Your task to perform on an android device: open sync settings in chrome Image 0: 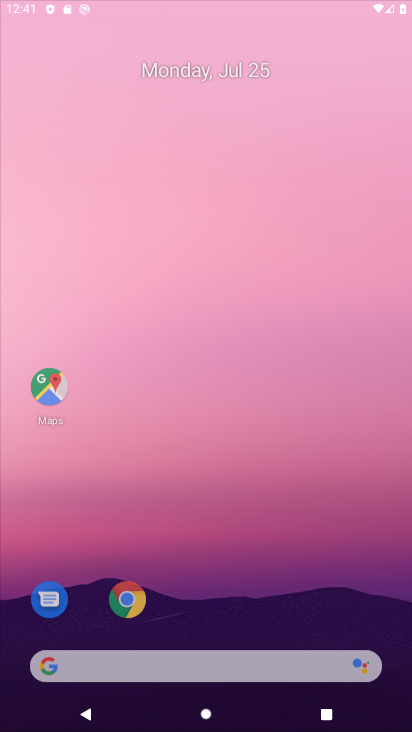
Step 0: drag from (193, 636) to (201, 107)
Your task to perform on an android device: open sync settings in chrome Image 1: 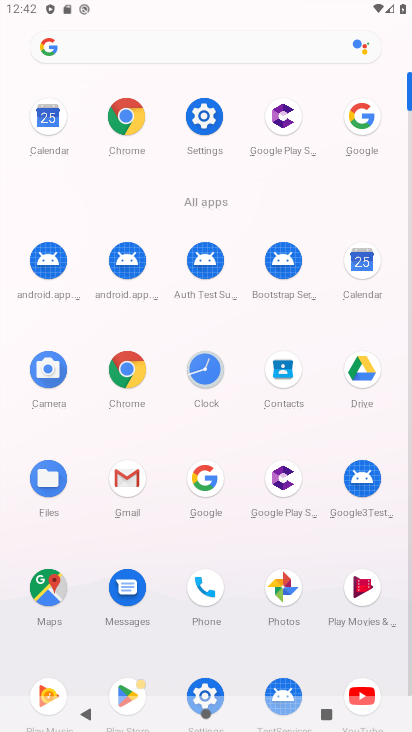
Step 1: click (121, 373)
Your task to perform on an android device: open sync settings in chrome Image 2: 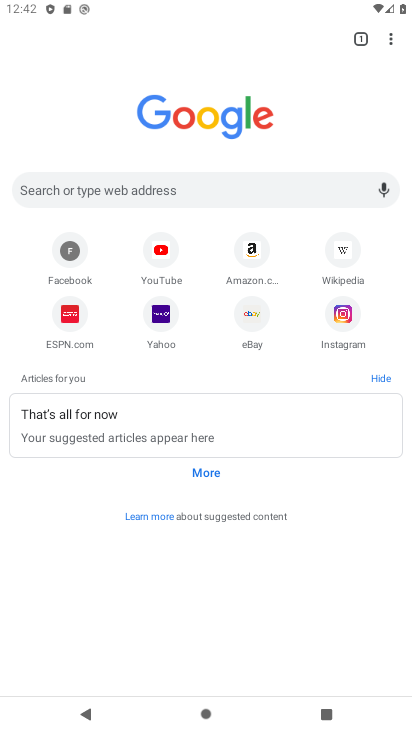
Step 2: click (388, 40)
Your task to perform on an android device: open sync settings in chrome Image 3: 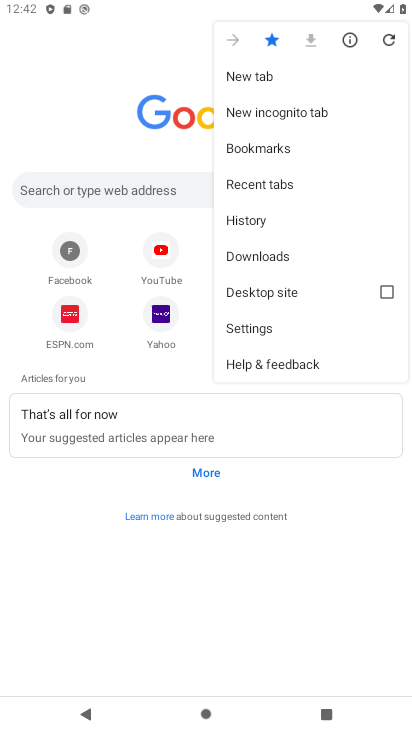
Step 3: click (263, 334)
Your task to perform on an android device: open sync settings in chrome Image 4: 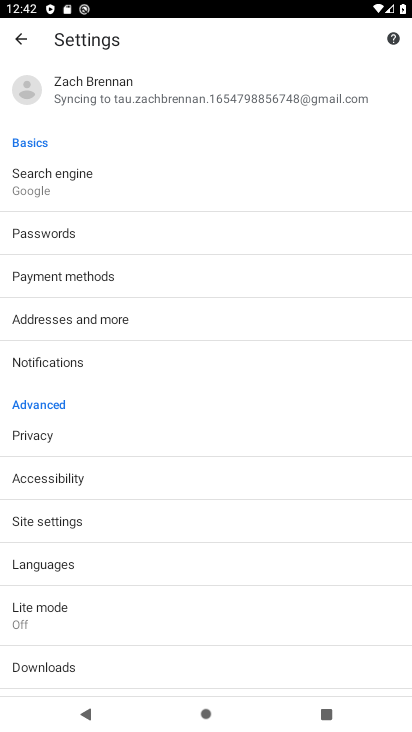
Step 4: drag from (121, 564) to (91, 1)
Your task to perform on an android device: open sync settings in chrome Image 5: 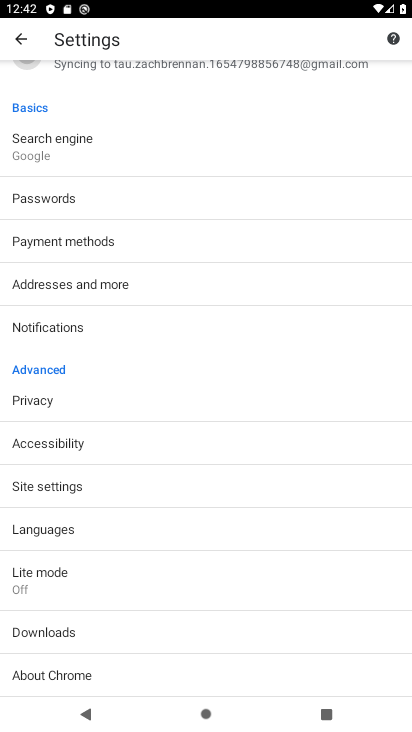
Step 5: click (55, 485)
Your task to perform on an android device: open sync settings in chrome Image 6: 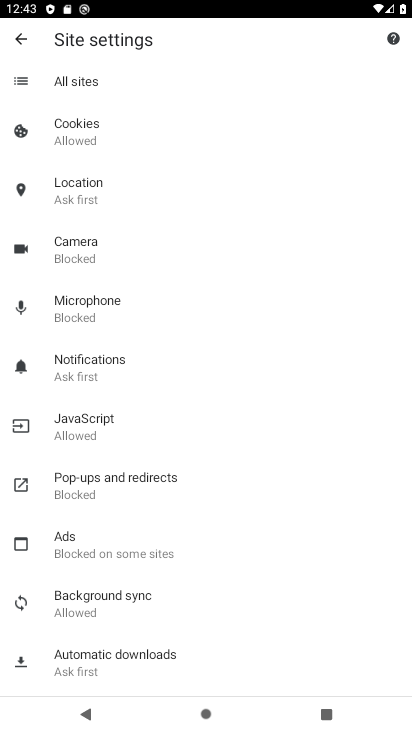
Step 6: drag from (109, 536) to (157, 50)
Your task to perform on an android device: open sync settings in chrome Image 7: 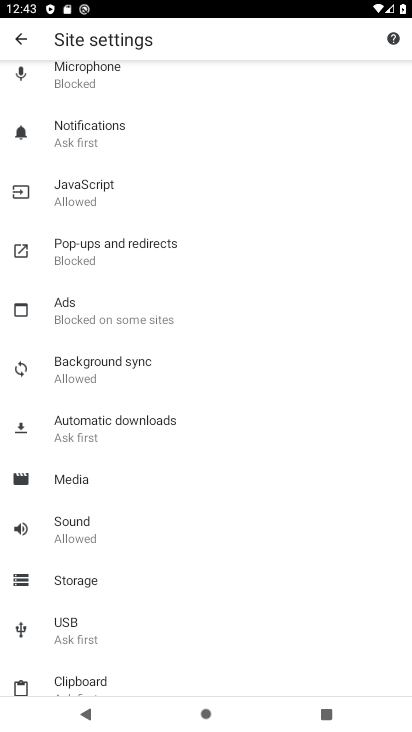
Step 7: drag from (94, 242) to (82, 731)
Your task to perform on an android device: open sync settings in chrome Image 8: 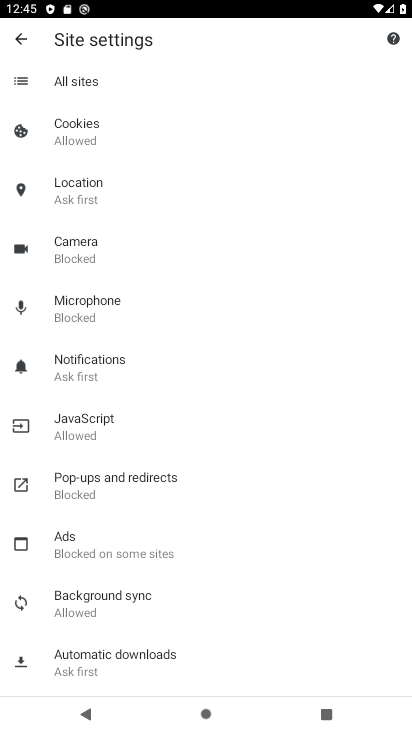
Step 8: click (21, 37)
Your task to perform on an android device: open sync settings in chrome Image 9: 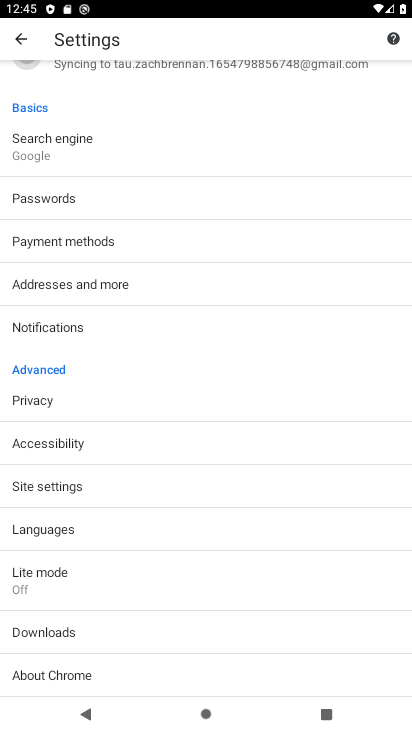
Step 9: drag from (103, 186) to (136, 526)
Your task to perform on an android device: open sync settings in chrome Image 10: 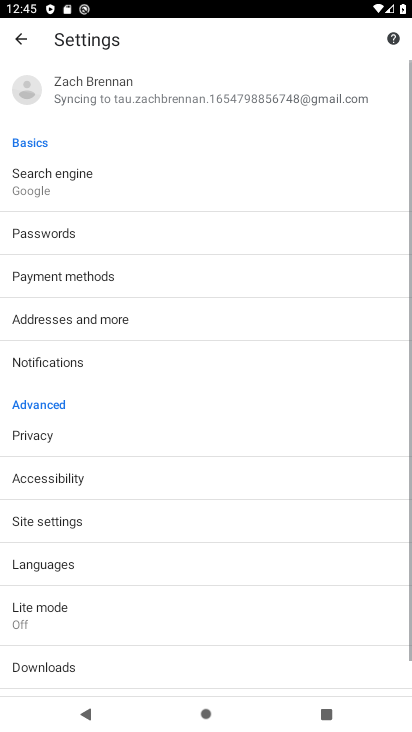
Step 10: click (52, 88)
Your task to perform on an android device: open sync settings in chrome Image 11: 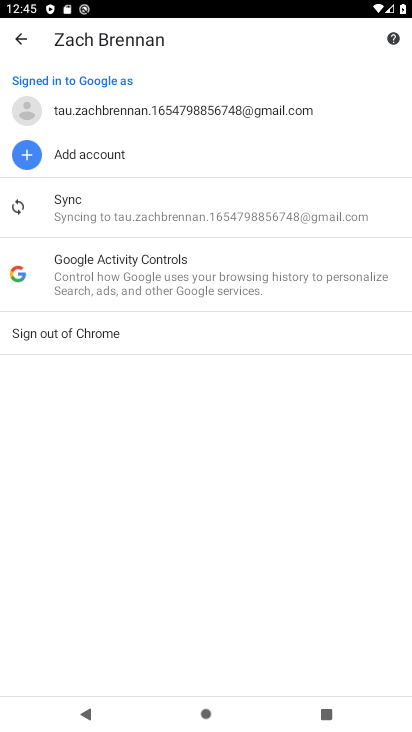
Step 11: task complete